Your task to perform on an android device: Open the web browser Image 0: 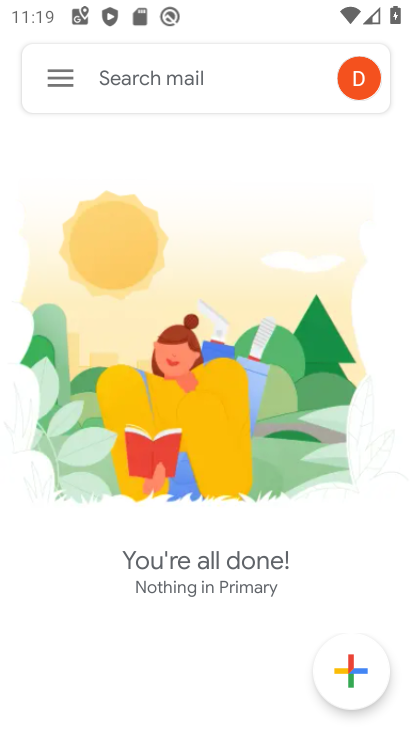
Step 0: press home button
Your task to perform on an android device: Open the web browser Image 1: 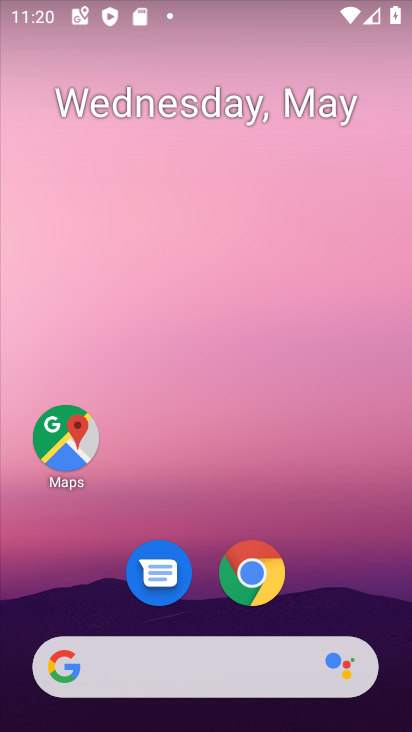
Step 1: click (251, 568)
Your task to perform on an android device: Open the web browser Image 2: 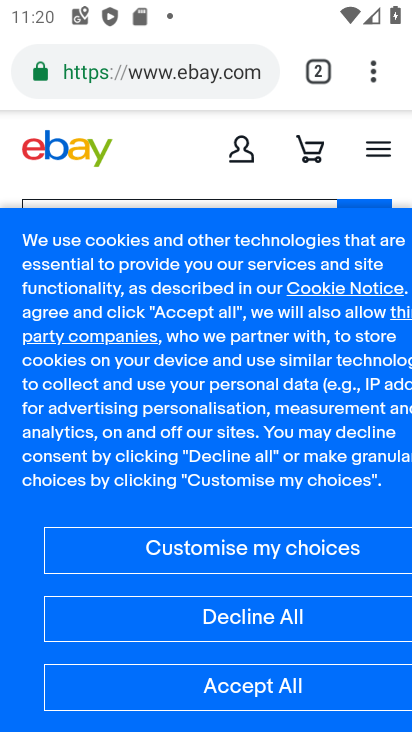
Step 2: task complete